Your task to perform on an android device: What's on my calendar today? Image 0: 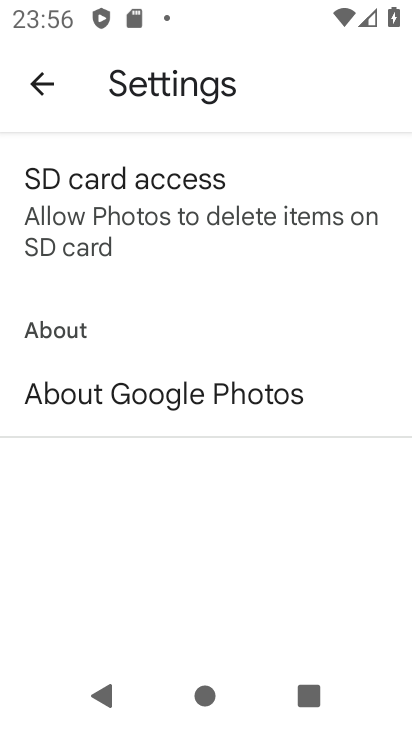
Step 0: press home button
Your task to perform on an android device: What's on my calendar today? Image 1: 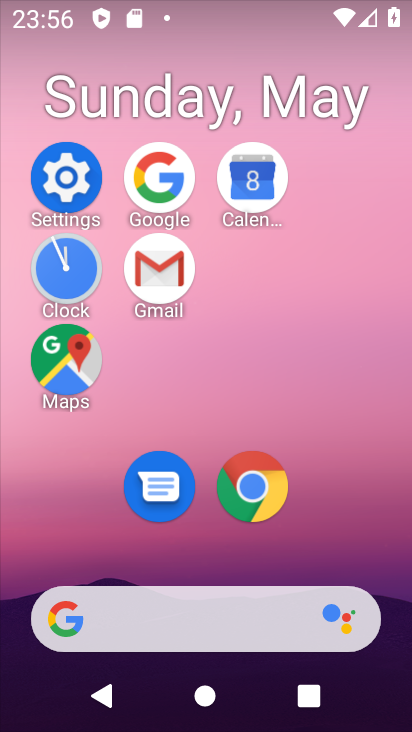
Step 1: click (243, 166)
Your task to perform on an android device: What's on my calendar today? Image 2: 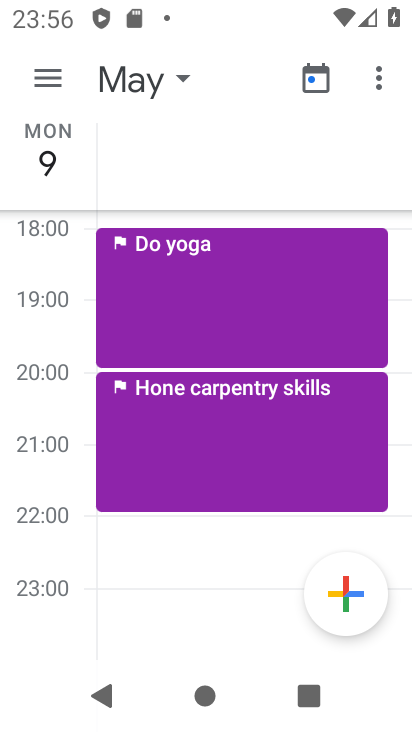
Step 2: task complete